Your task to perform on an android device: Search for sushi restaurants on Maps Image 0: 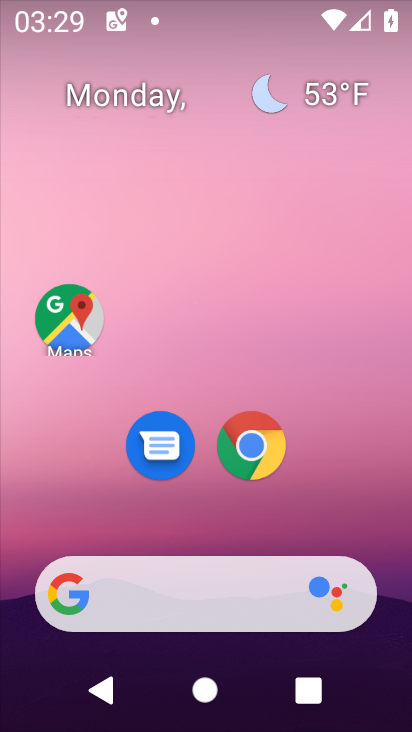
Step 0: click (76, 339)
Your task to perform on an android device: Search for sushi restaurants on Maps Image 1: 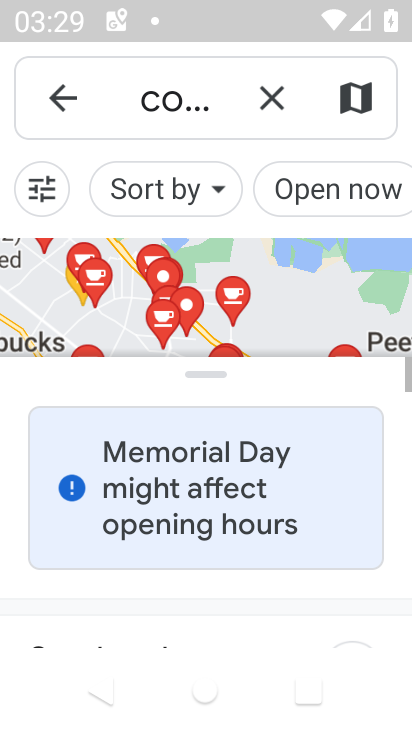
Step 1: click (255, 91)
Your task to perform on an android device: Search for sushi restaurants on Maps Image 2: 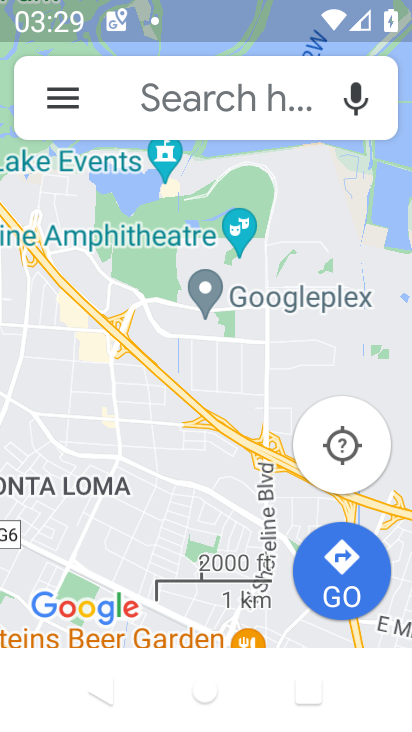
Step 2: click (178, 105)
Your task to perform on an android device: Search for sushi restaurants on Maps Image 3: 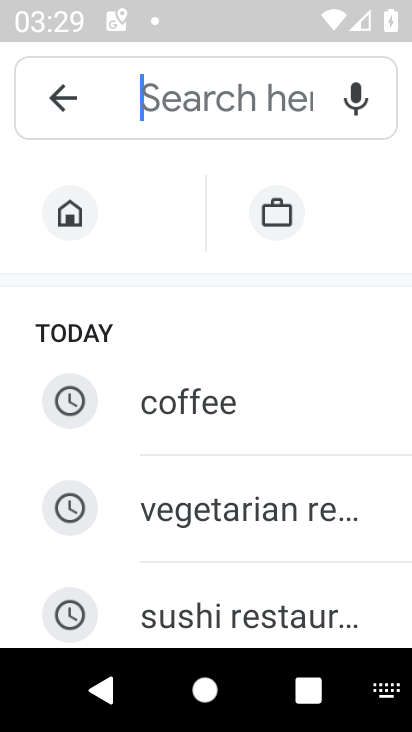
Step 3: type "Sushi restaurants"
Your task to perform on an android device: Search for sushi restaurants on Maps Image 4: 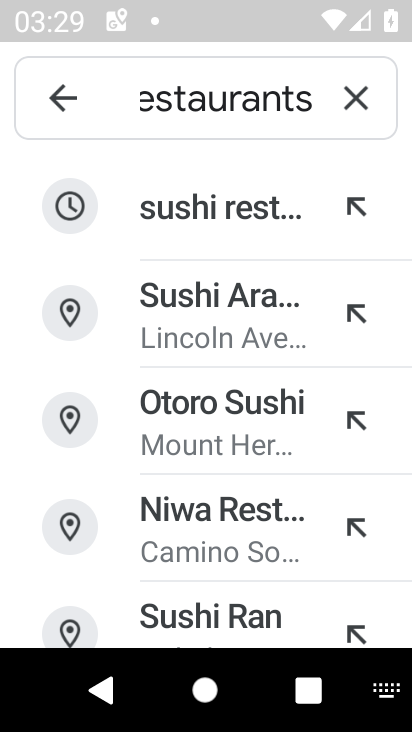
Step 4: click (199, 222)
Your task to perform on an android device: Search for sushi restaurants on Maps Image 5: 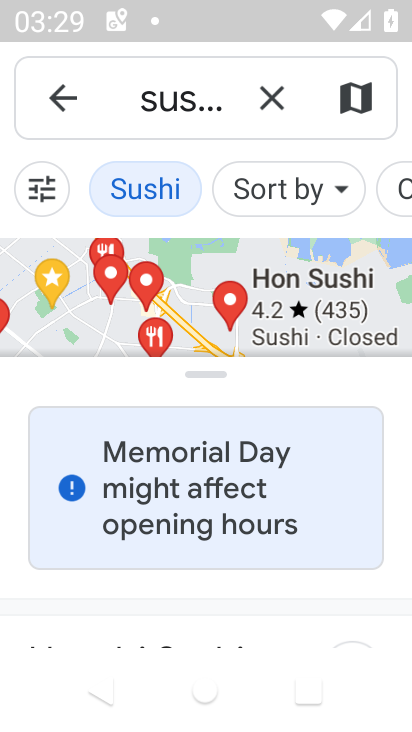
Step 5: task complete